Your task to perform on an android device: Open internet settings Image 0: 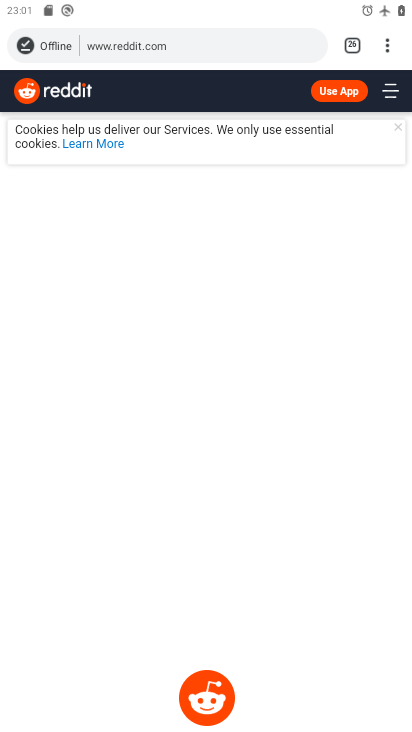
Step 0: press home button
Your task to perform on an android device: Open internet settings Image 1: 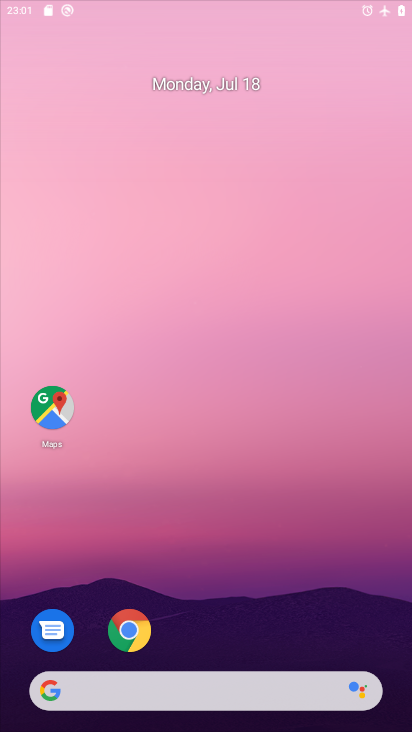
Step 1: drag from (152, 659) to (182, 235)
Your task to perform on an android device: Open internet settings Image 2: 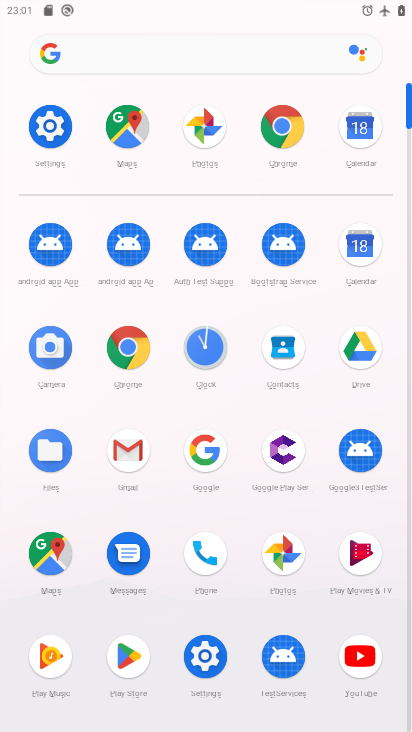
Step 2: click (42, 131)
Your task to perform on an android device: Open internet settings Image 3: 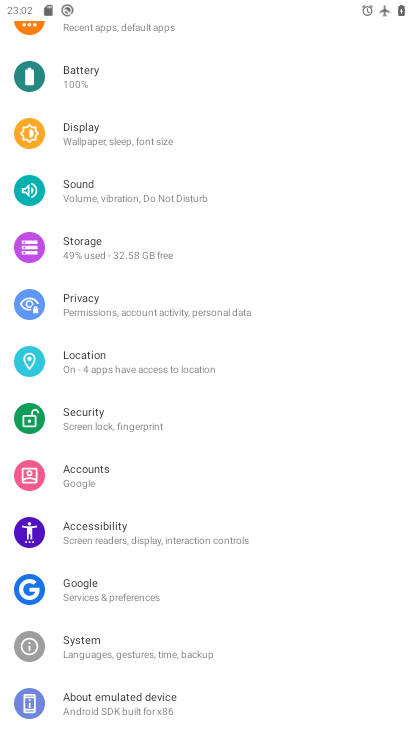
Step 3: drag from (147, 106) to (116, 553)
Your task to perform on an android device: Open internet settings Image 4: 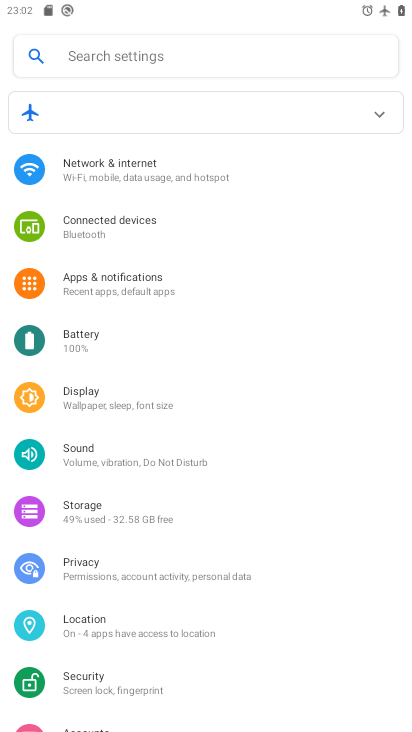
Step 4: click (118, 183)
Your task to perform on an android device: Open internet settings Image 5: 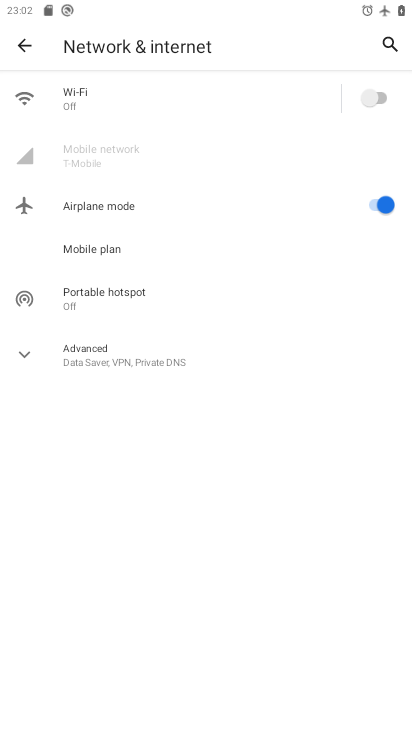
Step 5: task complete